Your task to perform on an android device: turn off data saver in the chrome app Image 0: 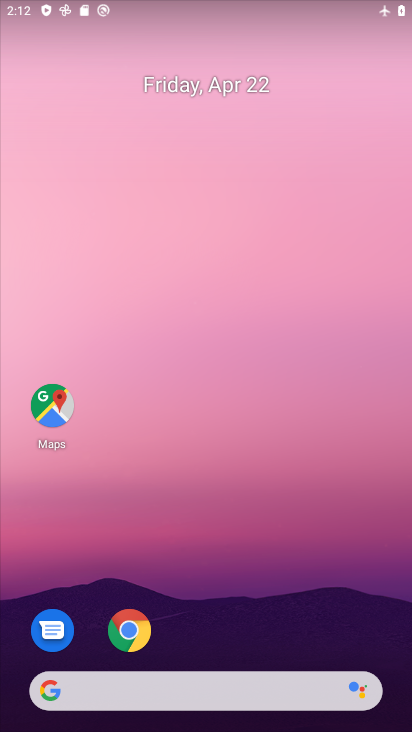
Step 0: drag from (299, 584) to (282, 102)
Your task to perform on an android device: turn off data saver in the chrome app Image 1: 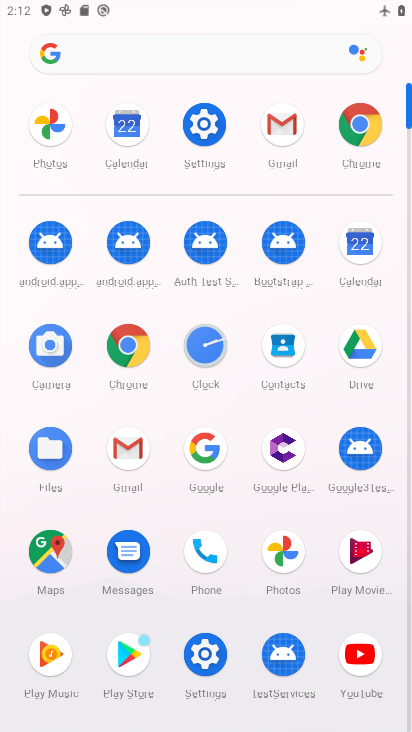
Step 1: click (378, 104)
Your task to perform on an android device: turn off data saver in the chrome app Image 2: 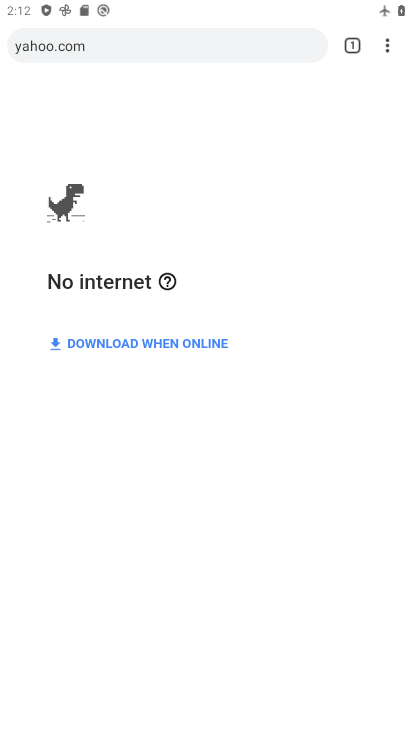
Step 2: drag from (395, 49) to (222, 567)
Your task to perform on an android device: turn off data saver in the chrome app Image 3: 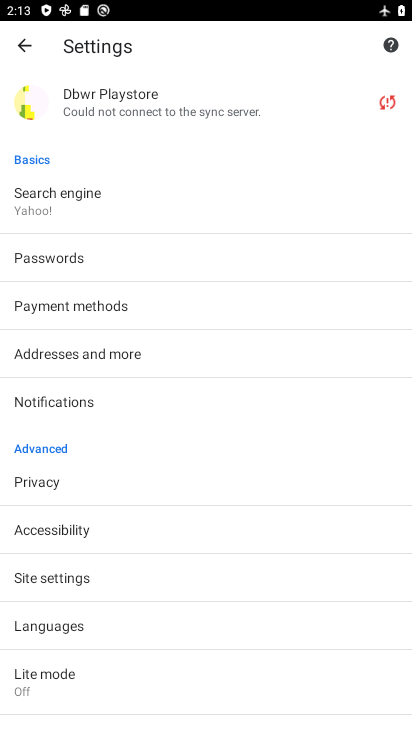
Step 3: click (82, 683)
Your task to perform on an android device: turn off data saver in the chrome app Image 4: 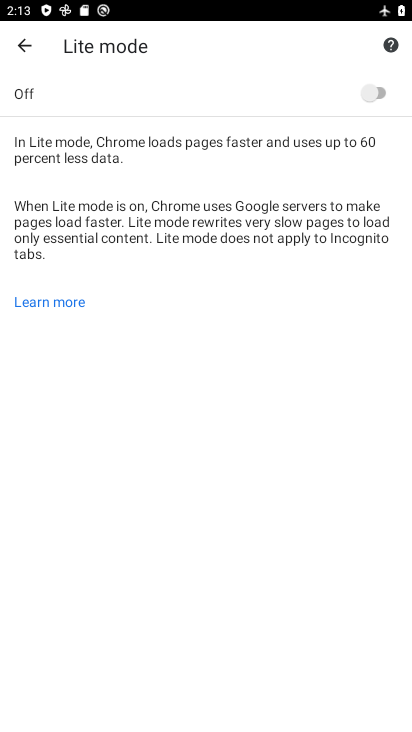
Step 4: task complete